Your task to perform on an android device: turn off picture-in-picture Image 0: 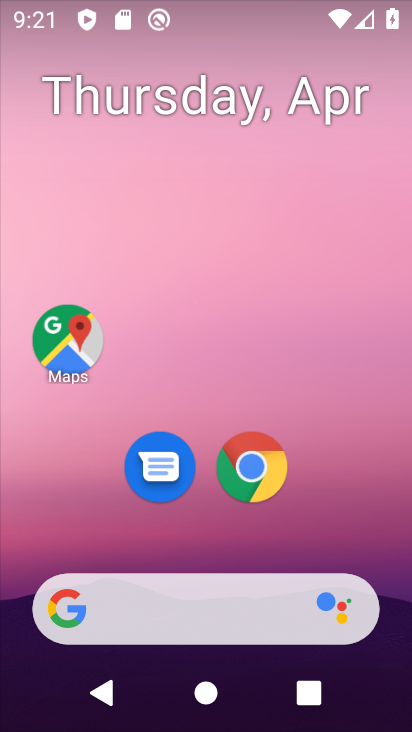
Step 0: click (251, 457)
Your task to perform on an android device: turn off picture-in-picture Image 1: 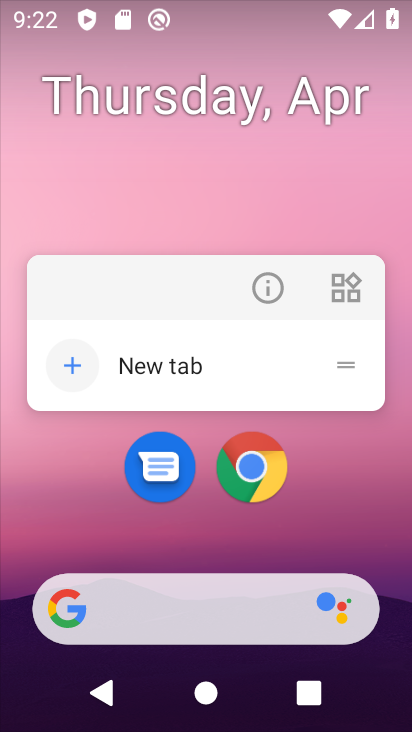
Step 1: click (252, 461)
Your task to perform on an android device: turn off picture-in-picture Image 2: 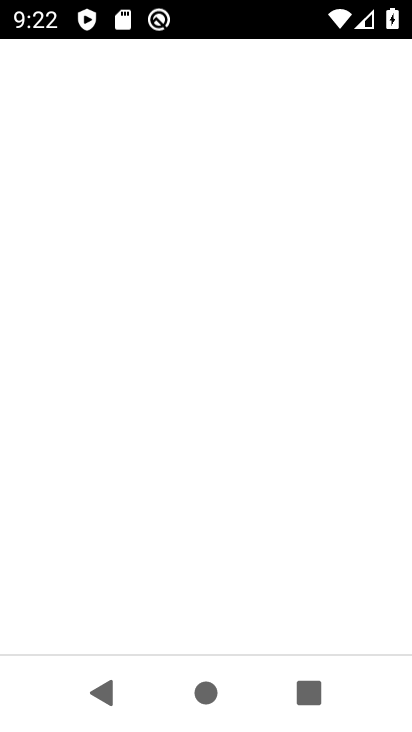
Step 2: drag from (259, 466) to (329, 521)
Your task to perform on an android device: turn off picture-in-picture Image 3: 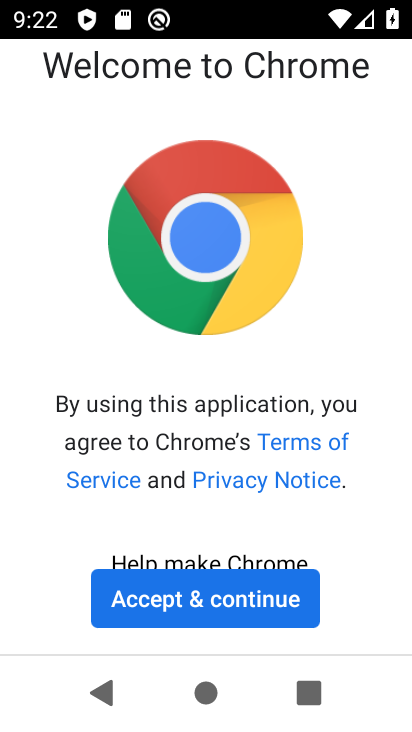
Step 3: press home button
Your task to perform on an android device: turn off picture-in-picture Image 4: 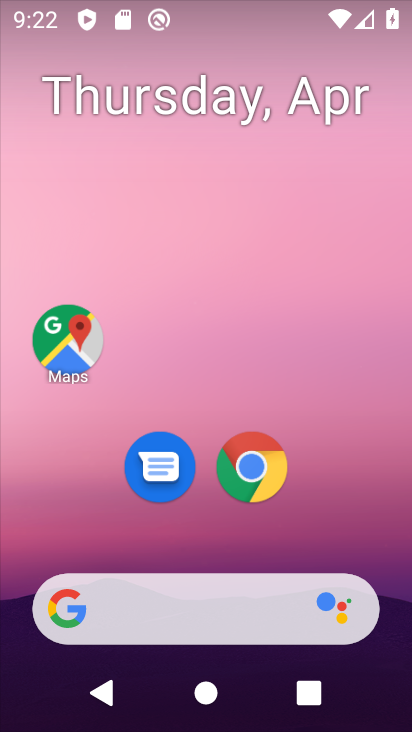
Step 4: click (269, 459)
Your task to perform on an android device: turn off picture-in-picture Image 5: 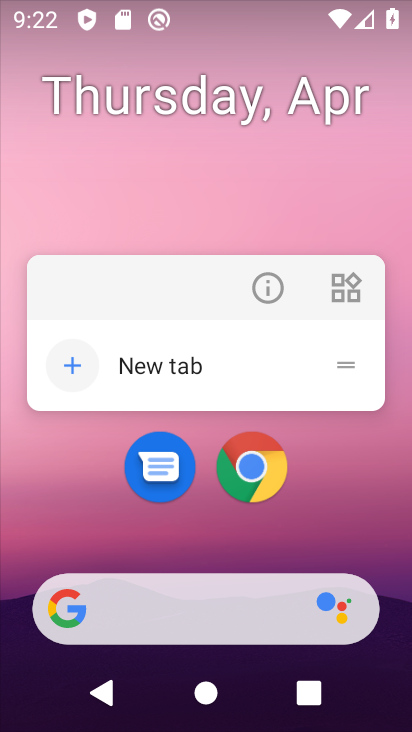
Step 5: click (268, 296)
Your task to perform on an android device: turn off picture-in-picture Image 6: 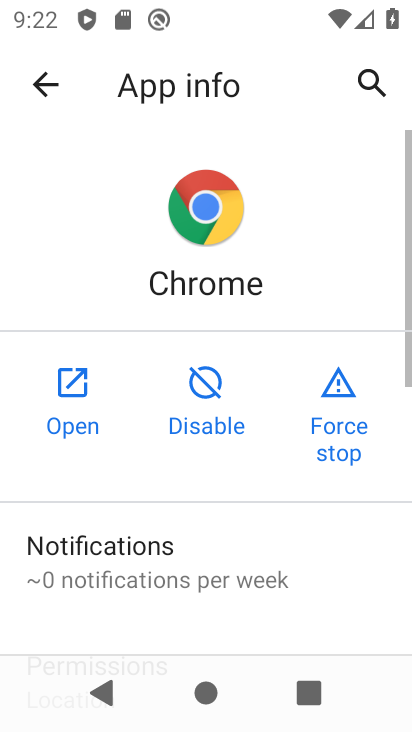
Step 6: drag from (227, 584) to (213, 187)
Your task to perform on an android device: turn off picture-in-picture Image 7: 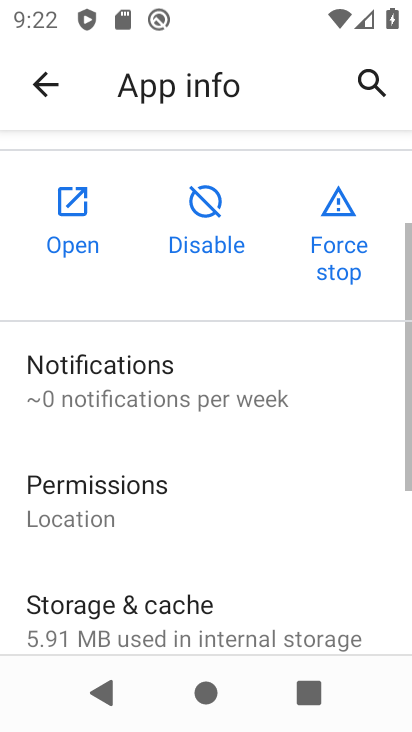
Step 7: drag from (219, 531) to (241, 114)
Your task to perform on an android device: turn off picture-in-picture Image 8: 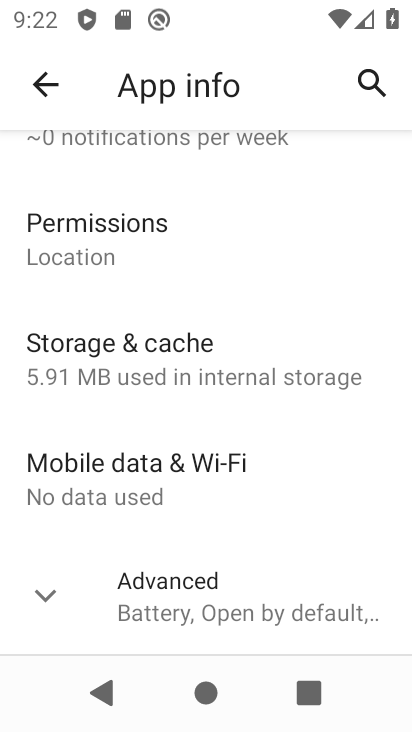
Step 8: click (228, 600)
Your task to perform on an android device: turn off picture-in-picture Image 9: 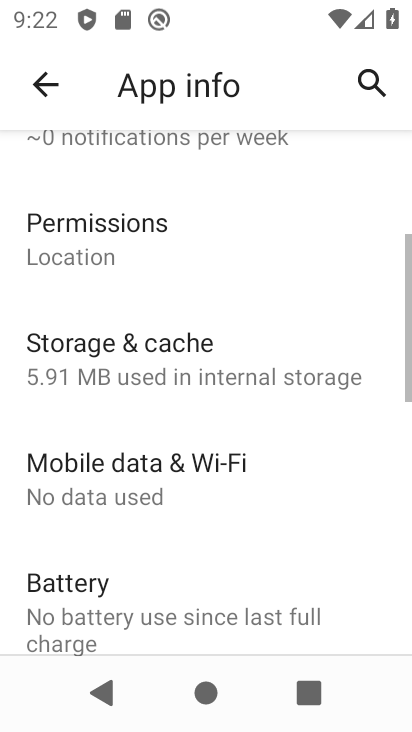
Step 9: drag from (228, 600) to (250, 312)
Your task to perform on an android device: turn off picture-in-picture Image 10: 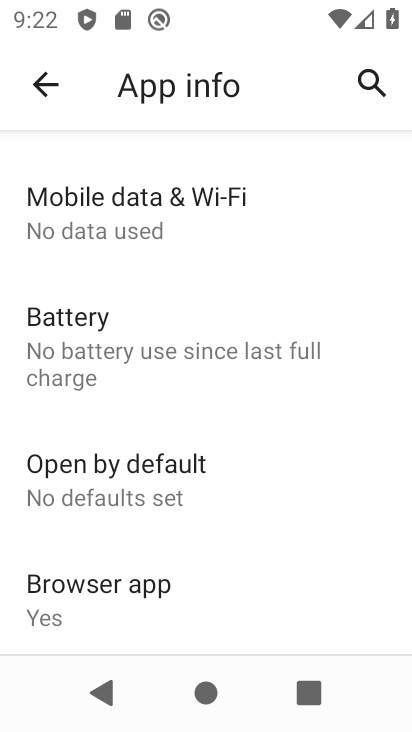
Step 10: drag from (213, 641) to (227, 324)
Your task to perform on an android device: turn off picture-in-picture Image 11: 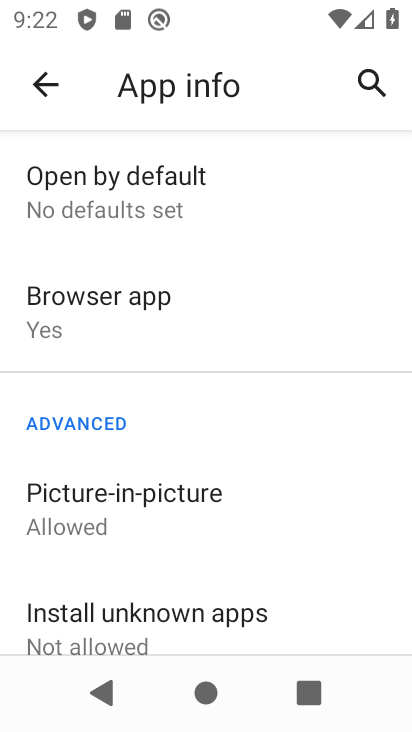
Step 11: click (228, 528)
Your task to perform on an android device: turn off picture-in-picture Image 12: 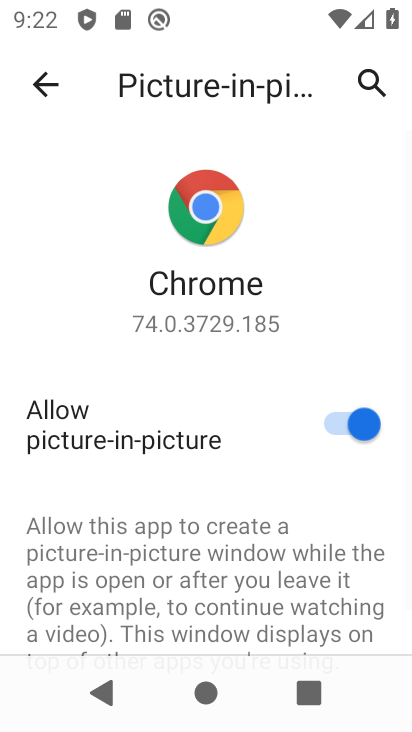
Step 12: click (353, 427)
Your task to perform on an android device: turn off picture-in-picture Image 13: 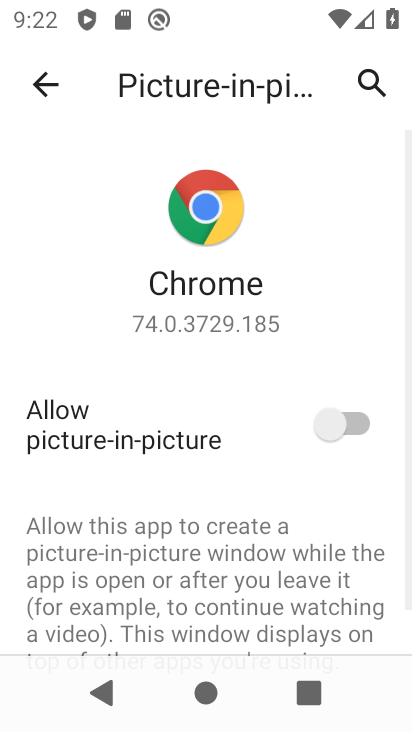
Step 13: task complete